Your task to perform on an android device: find snoozed emails in the gmail app Image 0: 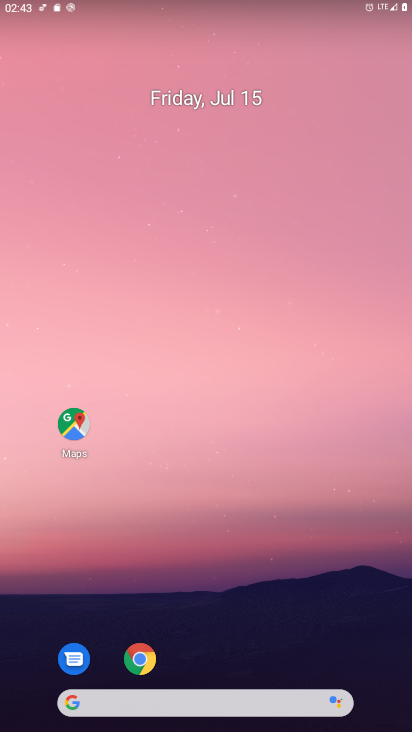
Step 0: drag from (209, 642) to (227, 312)
Your task to perform on an android device: find snoozed emails in the gmail app Image 1: 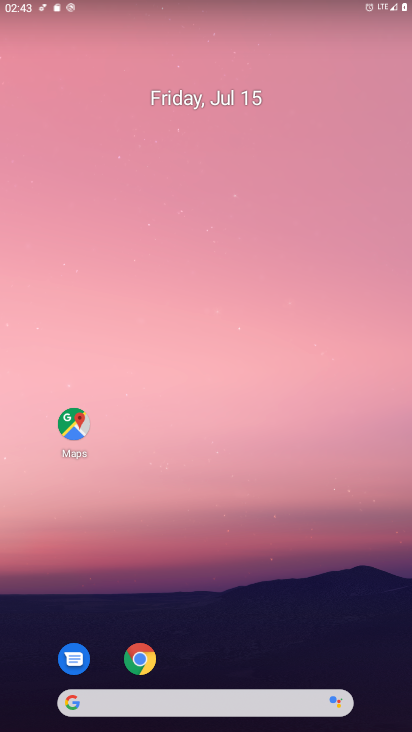
Step 1: drag from (218, 624) to (244, 229)
Your task to perform on an android device: find snoozed emails in the gmail app Image 2: 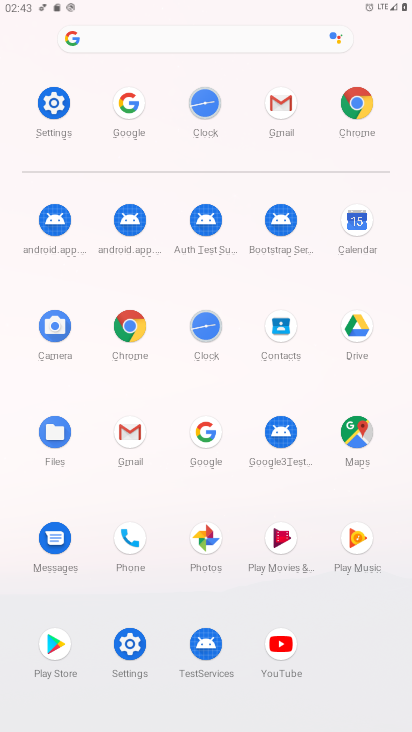
Step 2: click (130, 424)
Your task to perform on an android device: find snoozed emails in the gmail app Image 3: 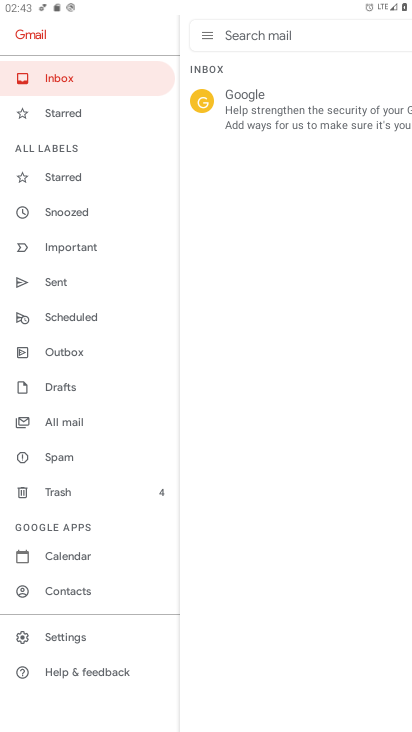
Step 3: click (77, 200)
Your task to perform on an android device: find snoozed emails in the gmail app Image 4: 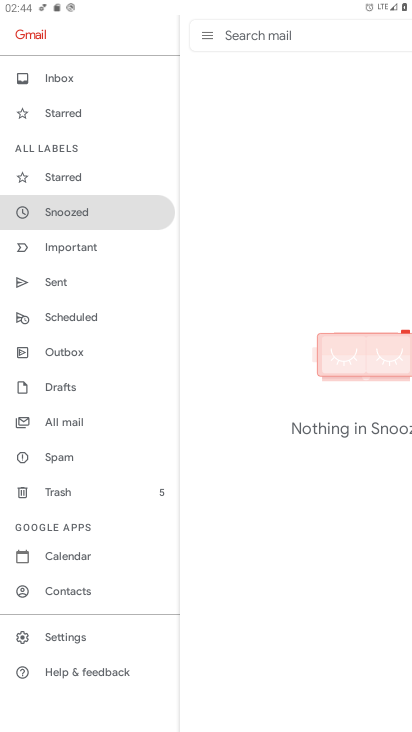
Step 4: task complete